Your task to perform on an android device: Add "razer thresher" to the cart on ebay.com Image 0: 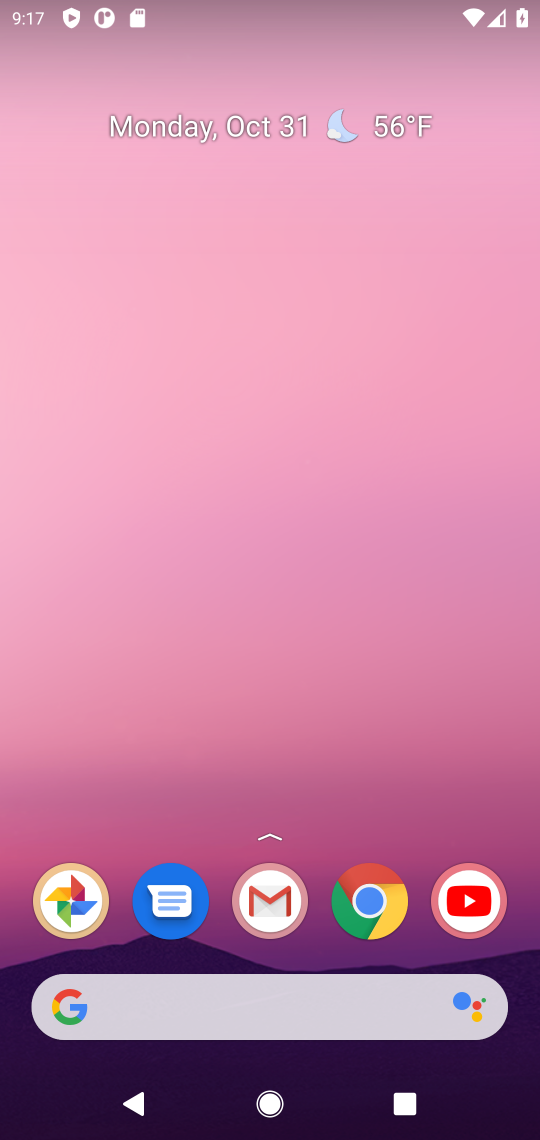
Step 0: drag from (176, 964) to (258, 201)
Your task to perform on an android device: Add "razer thresher" to the cart on ebay.com Image 1: 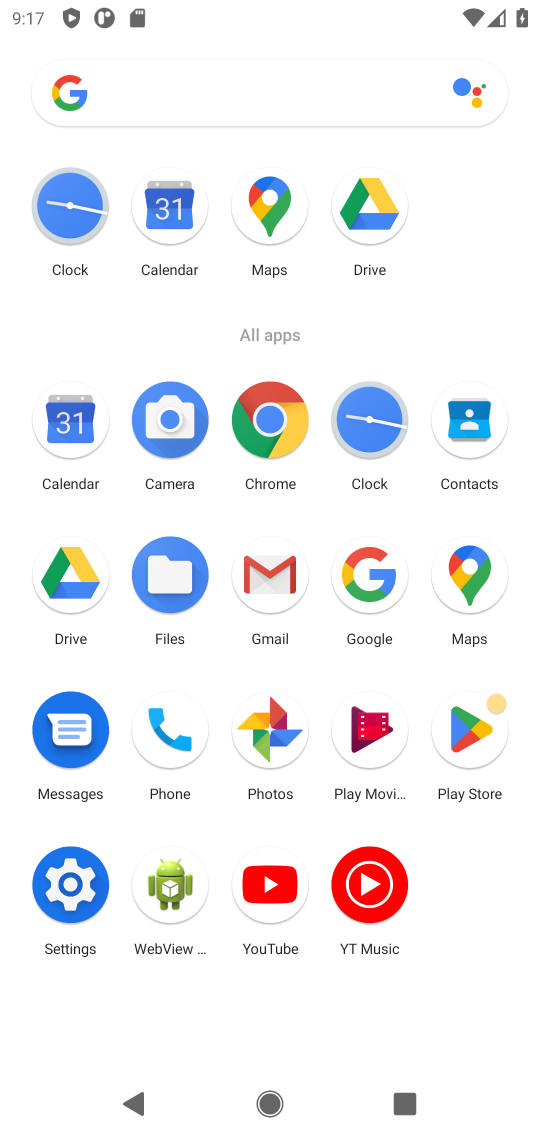
Step 1: click (369, 571)
Your task to perform on an android device: Add "razer thresher" to the cart on ebay.com Image 2: 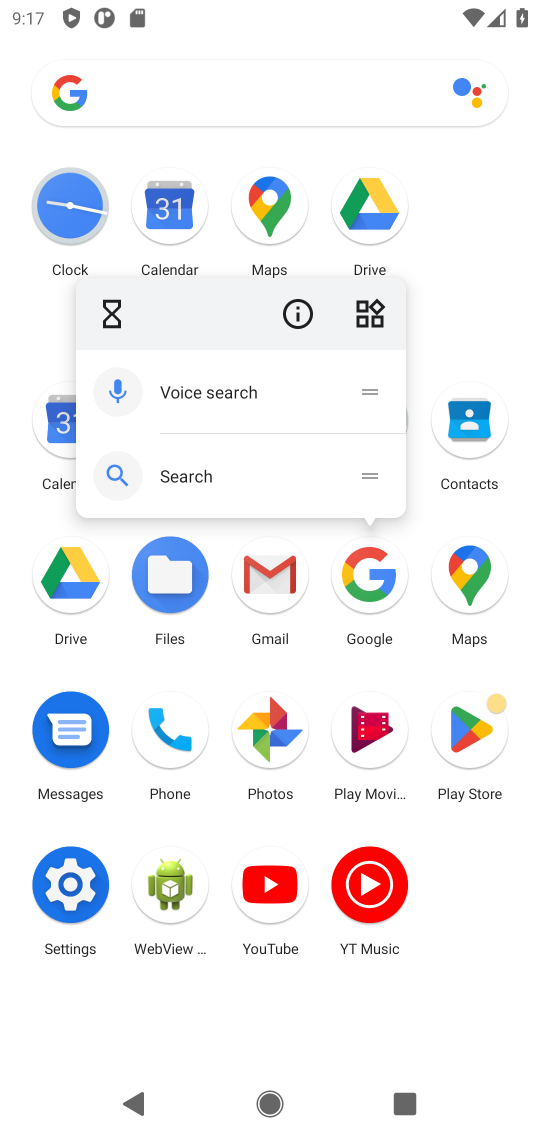
Step 2: click (369, 571)
Your task to perform on an android device: Add "razer thresher" to the cart on ebay.com Image 3: 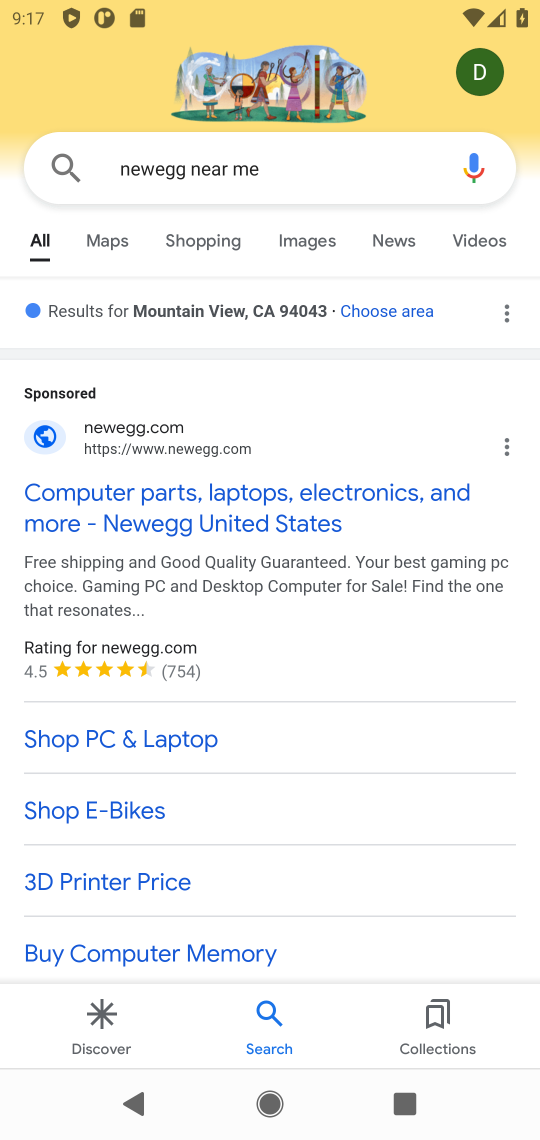
Step 3: click (243, 157)
Your task to perform on an android device: Add "razer thresher" to the cart on ebay.com Image 4: 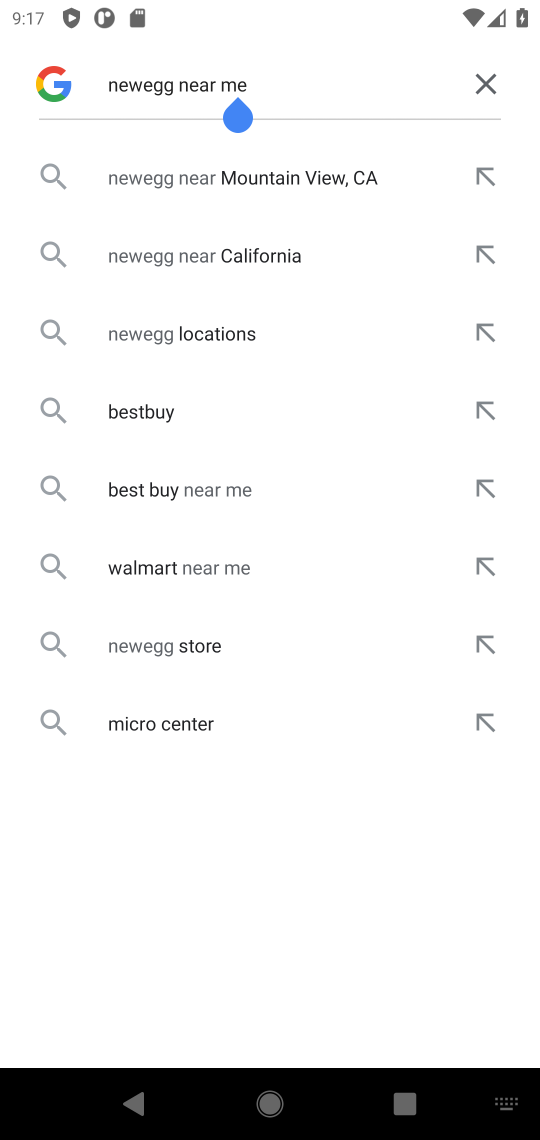
Step 4: click (489, 90)
Your task to perform on an android device: Add "razer thresher" to the cart on ebay.com Image 5: 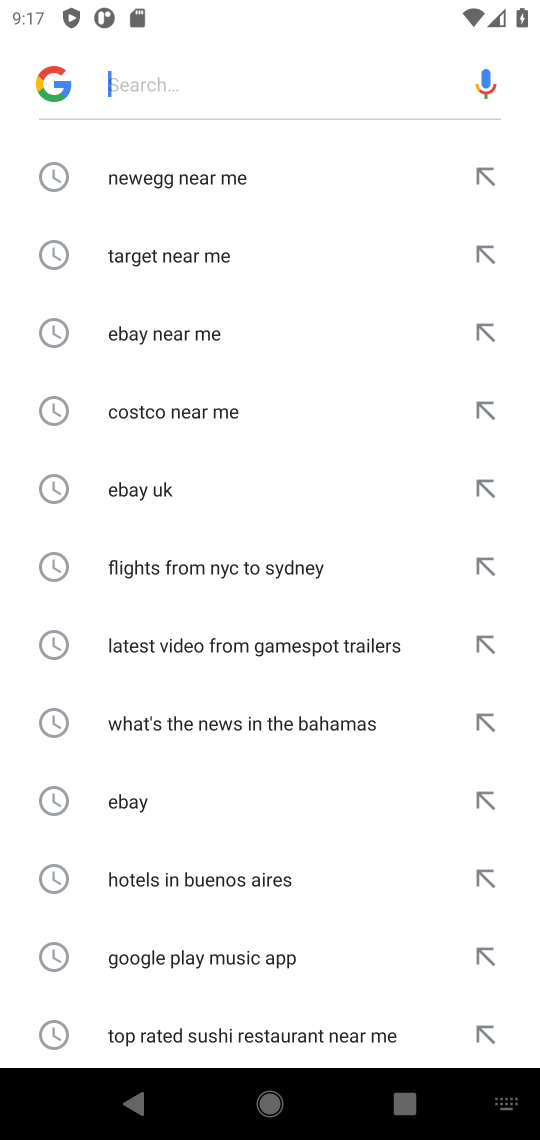
Step 5: click (176, 70)
Your task to perform on an android device: Add "razer thresher" to the cart on ebay.com Image 6: 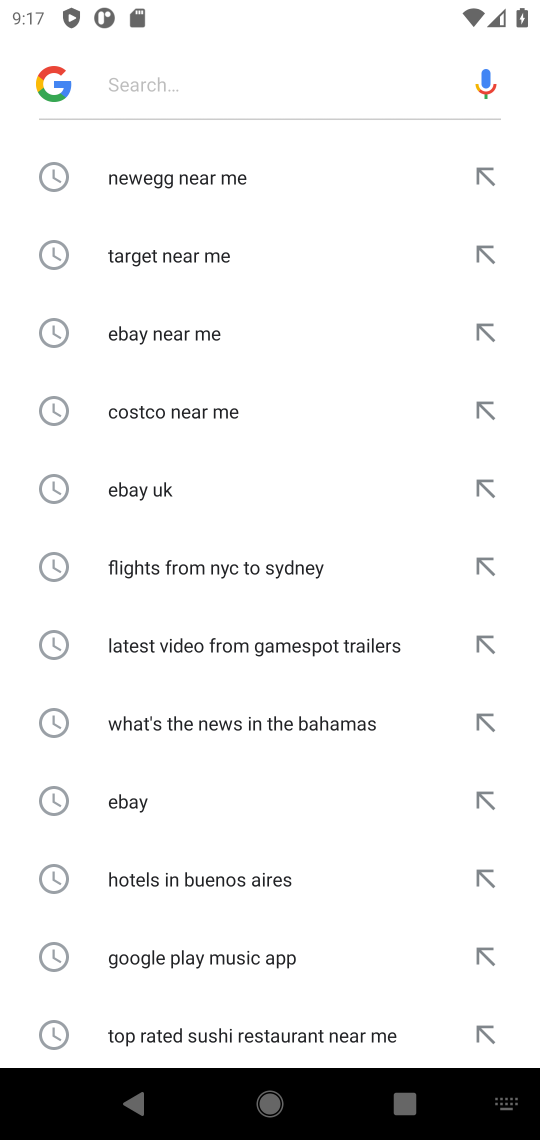
Step 6: type "ebay "
Your task to perform on an android device: Add "razer thresher" to the cart on ebay.com Image 7: 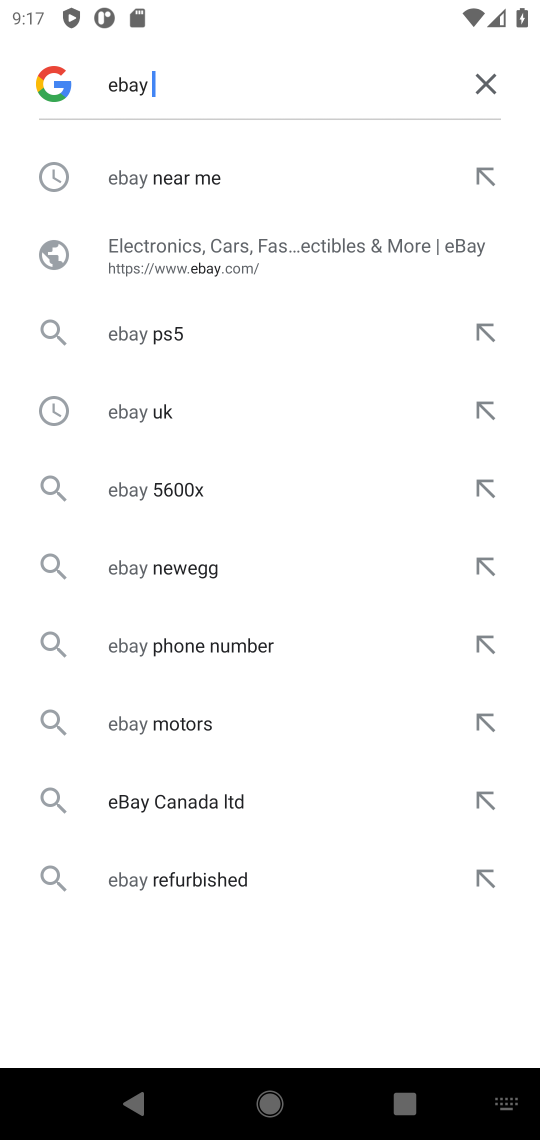
Step 7: click (132, 177)
Your task to perform on an android device: Add "razer thresher" to the cart on ebay.com Image 8: 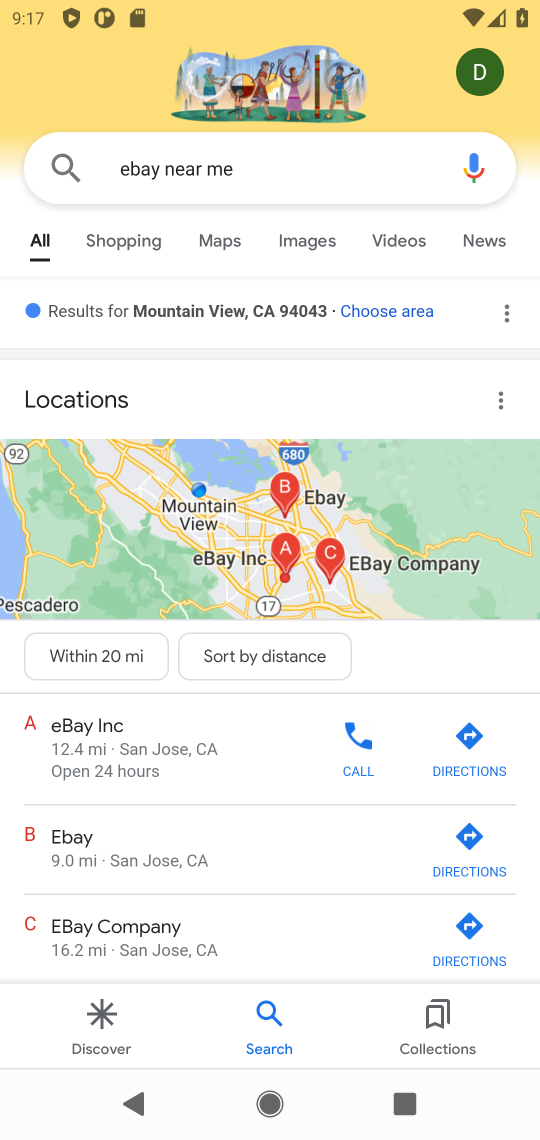
Step 8: drag from (213, 923) to (291, 236)
Your task to perform on an android device: Add "razer thresher" to the cart on ebay.com Image 9: 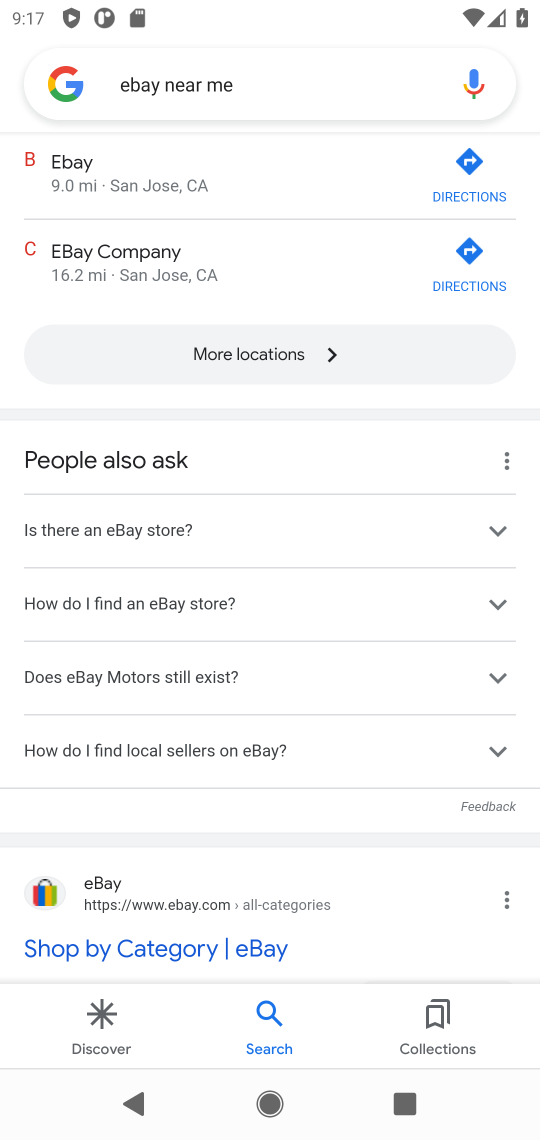
Step 9: click (34, 895)
Your task to perform on an android device: Add "razer thresher" to the cart on ebay.com Image 10: 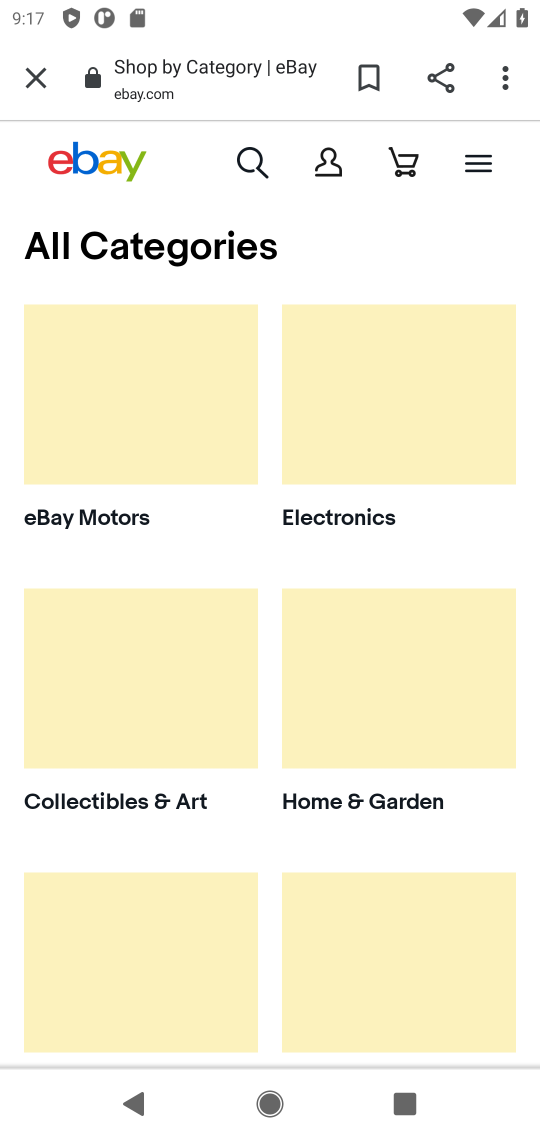
Step 10: click (251, 162)
Your task to perform on an android device: Add "razer thresher" to the cart on ebay.com Image 11: 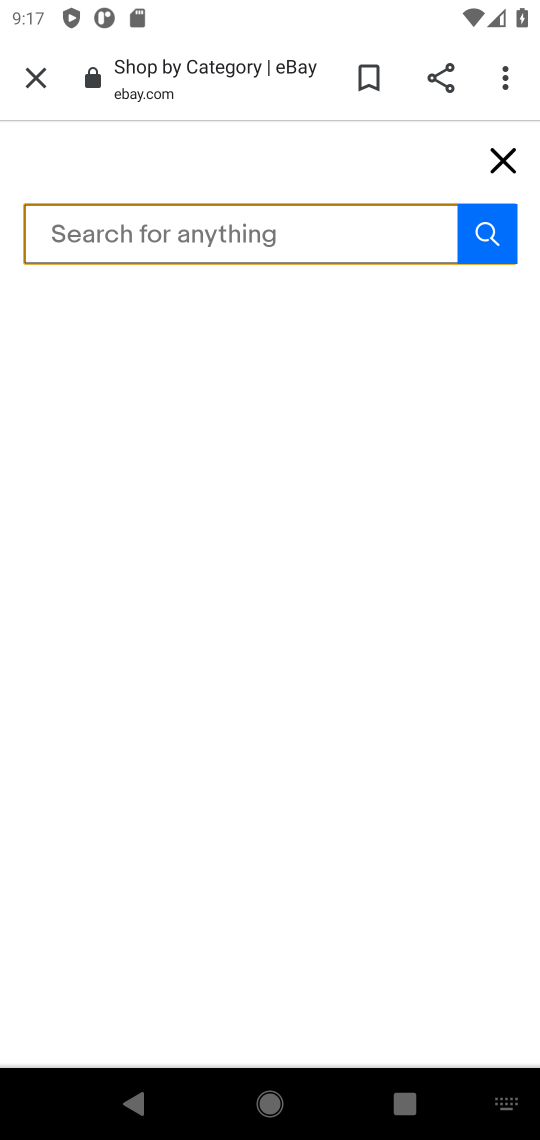
Step 11: click (204, 233)
Your task to perform on an android device: Add "razer thresher" to the cart on ebay.com Image 12: 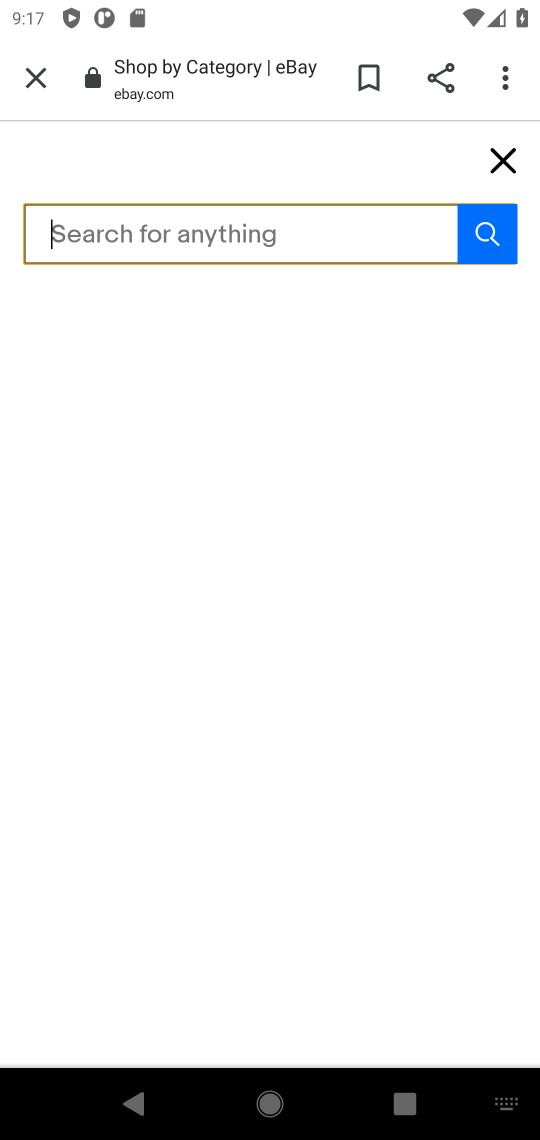
Step 12: click (202, 228)
Your task to perform on an android device: Add "razer thresher" to the cart on ebay.com Image 13: 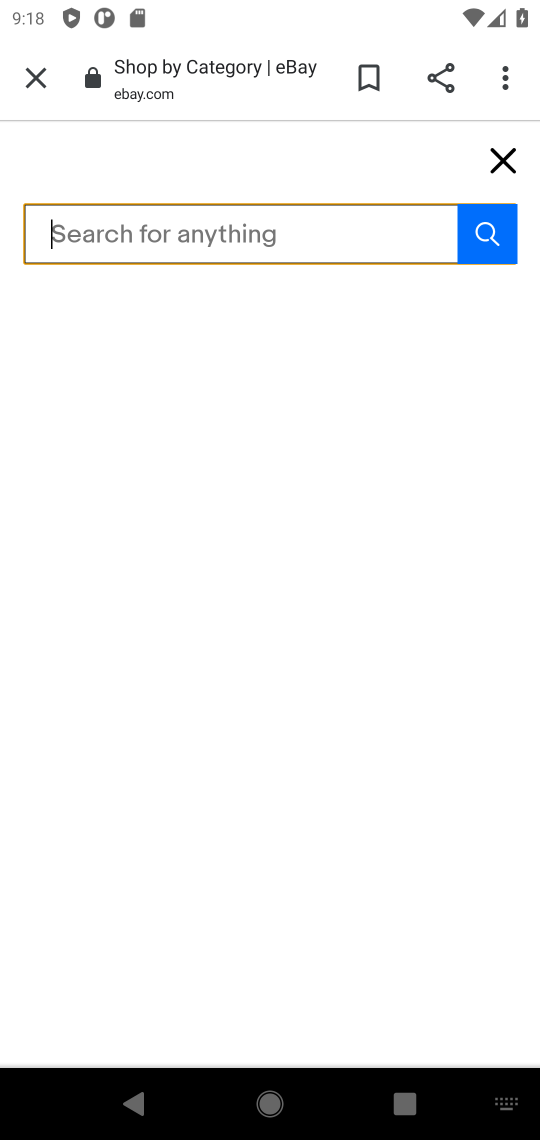
Step 13: type "razer thresher "
Your task to perform on an android device: Add "razer thresher" to the cart on ebay.com Image 14: 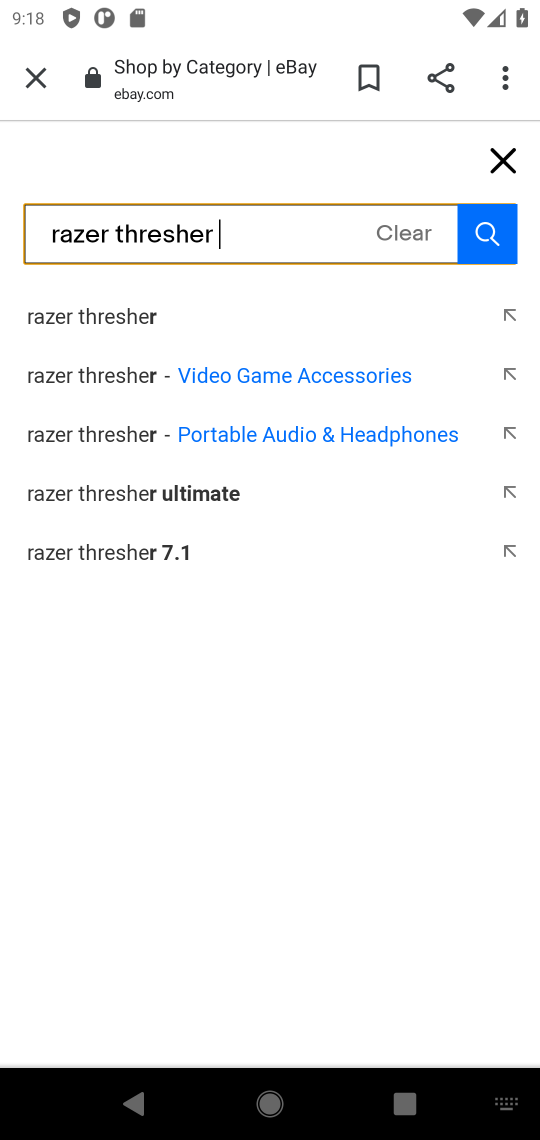
Step 14: click (56, 312)
Your task to perform on an android device: Add "razer thresher" to the cart on ebay.com Image 15: 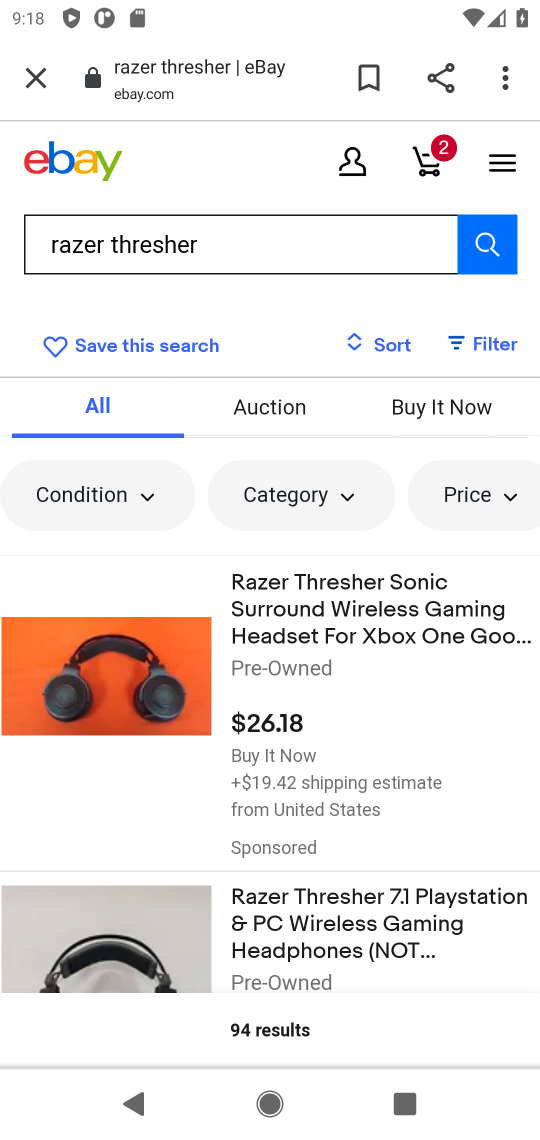
Step 15: click (363, 602)
Your task to perform on an android device: Add "razer thresher" to the cart on ebay.com Image 16: 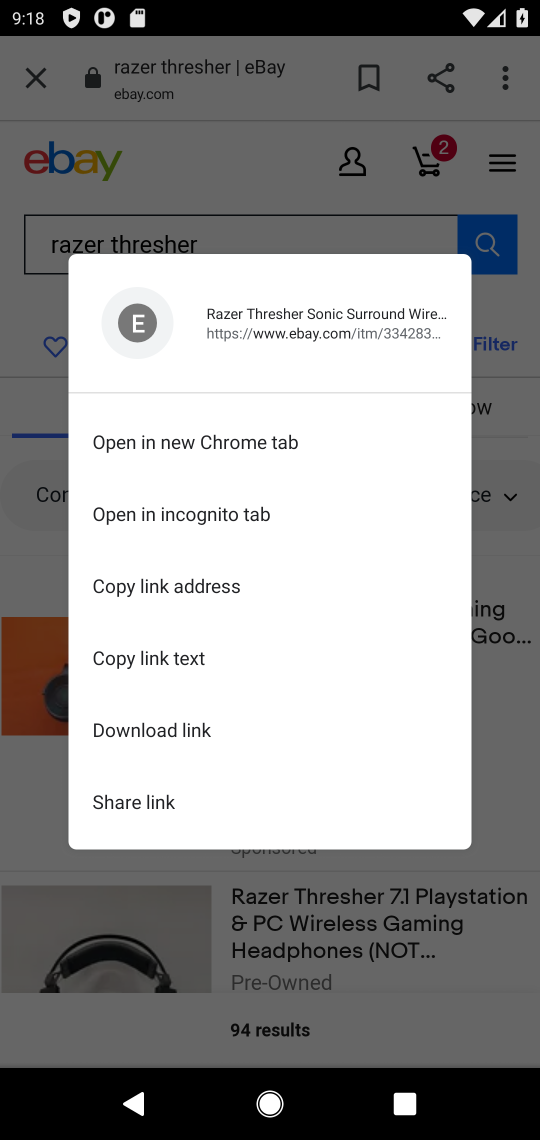
Step 16: click (527, 765)
Your task to perform on an android device: Add "razer thresher" to the cart on ebay.com Image 17: 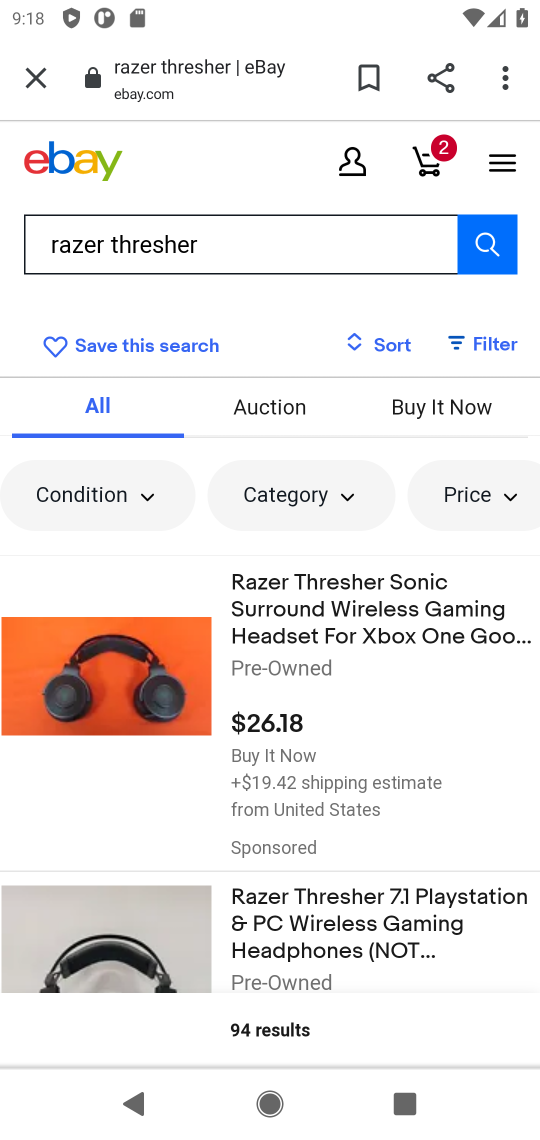
Step 17: click (281, 916)
Your task to perform on an android device: Add "razer thresher" to the cart on ebay.com Image 18: 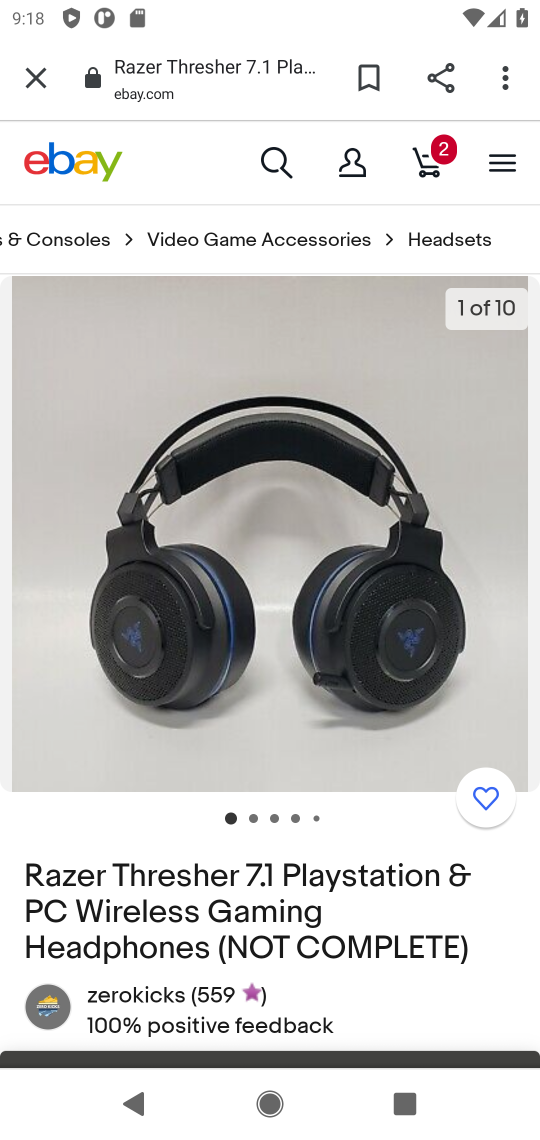
Step 18: drag from (371, 897) to (419, 248)
Your task to perform on an android device: Add "razer thresher" to the cart on ebay.com Image 19: 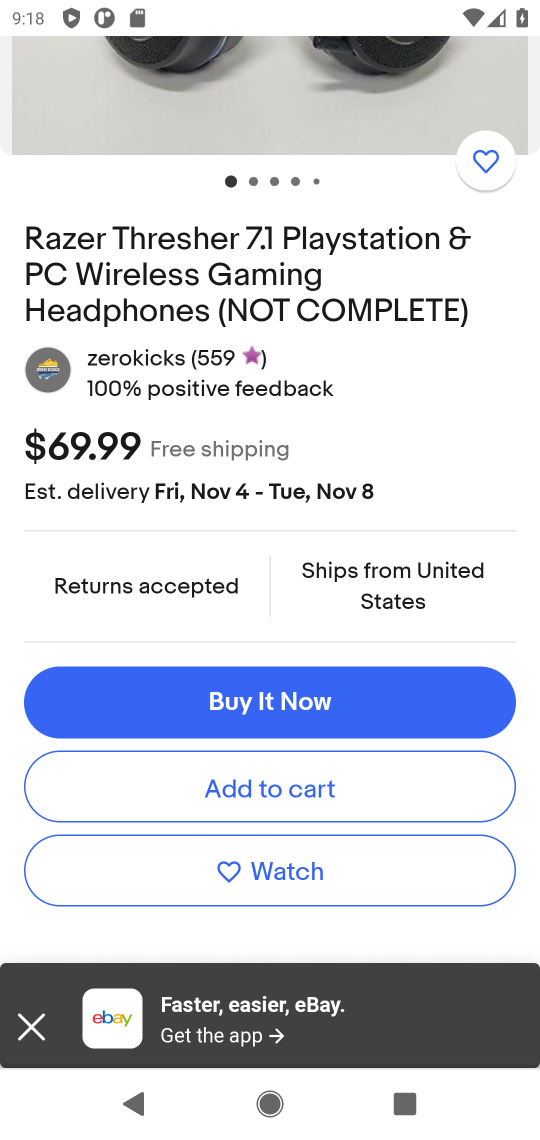
Step 19: click (25, 1025)
Your task to perform on an android device: Add "razer thresher" to the cart on ebay.com Image 20: 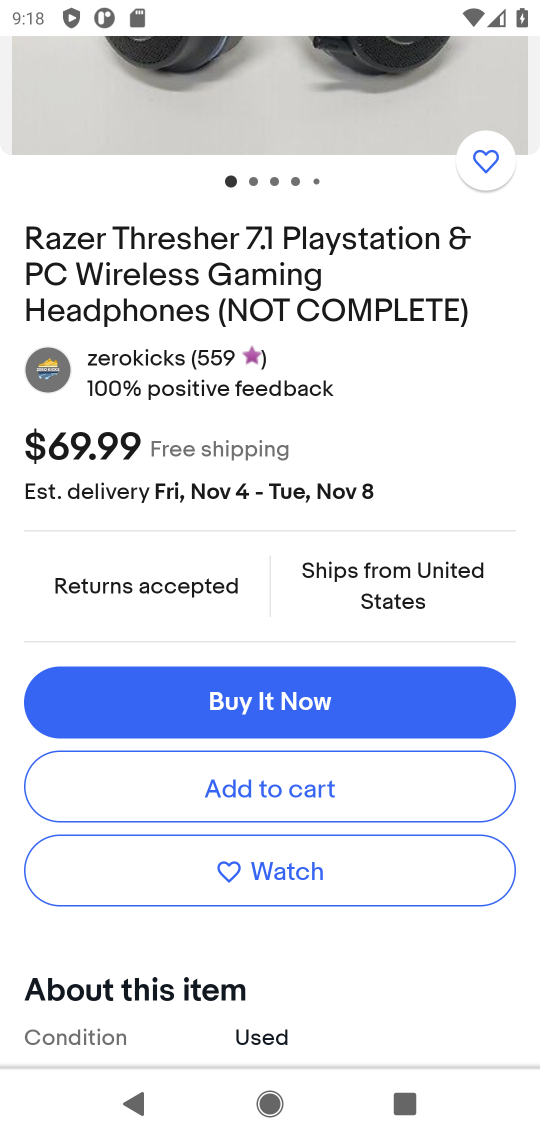
Step 20: click (254, 796)
Your task to perform on an android device: Add "razer thresher" to the cart on ebay.com Image 21: 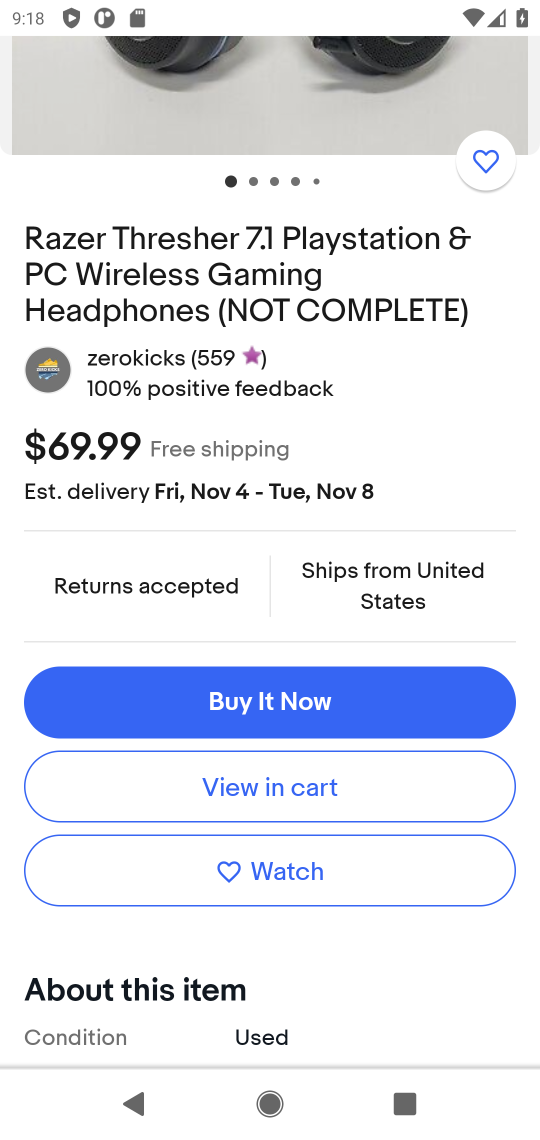
Step 21: click (254, 796)
Your task to perform on an android device: Add "razer thresher" to the cart on ebay.com Image 22: 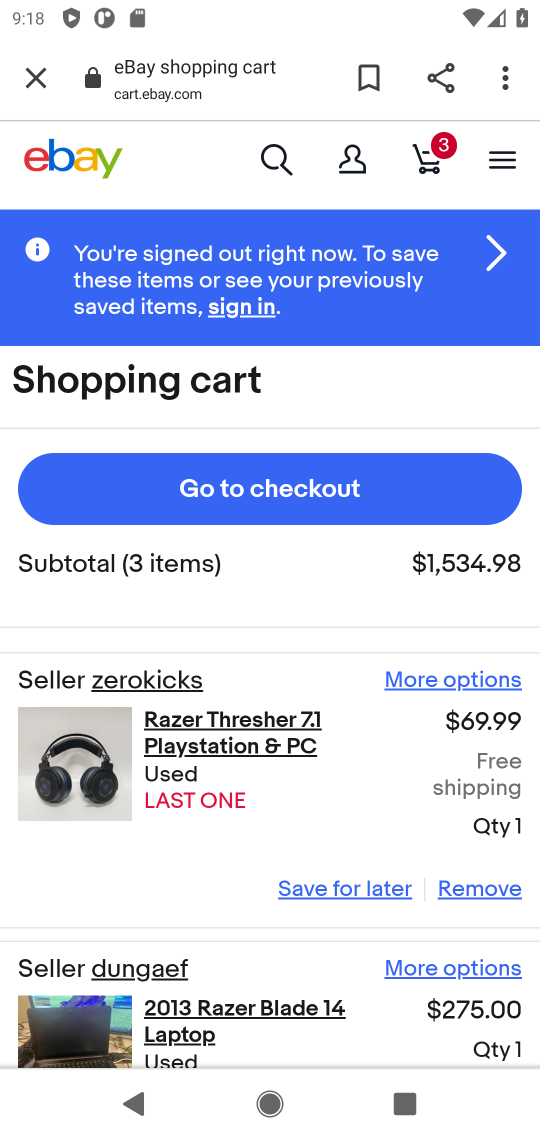
Step 22: task complete